Your task to perform on an android device: change text size in settings app Image 0: 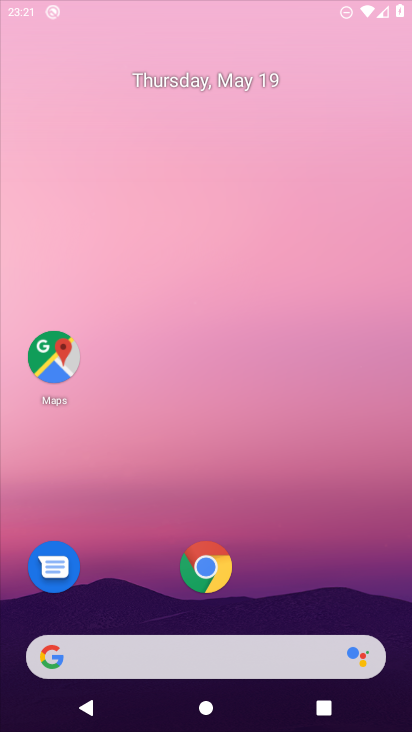
Step 0: press home button
Your task to perform on an android device: change text size in settings app Image 1: 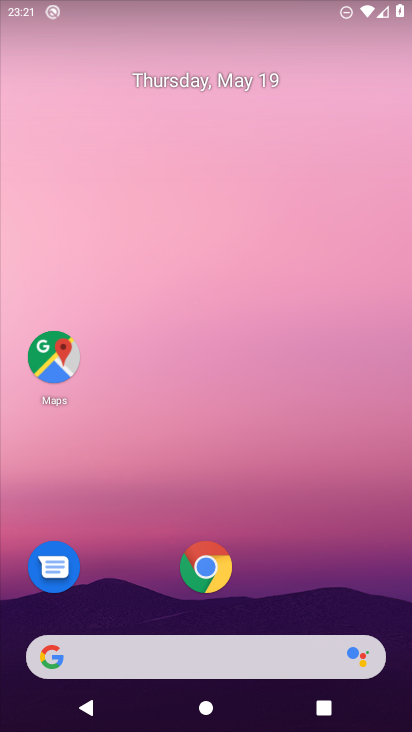
Step 1: drag from (252, 614) to (288, 13)
Your task to perform on an android device: change text size in settings app Image 2: 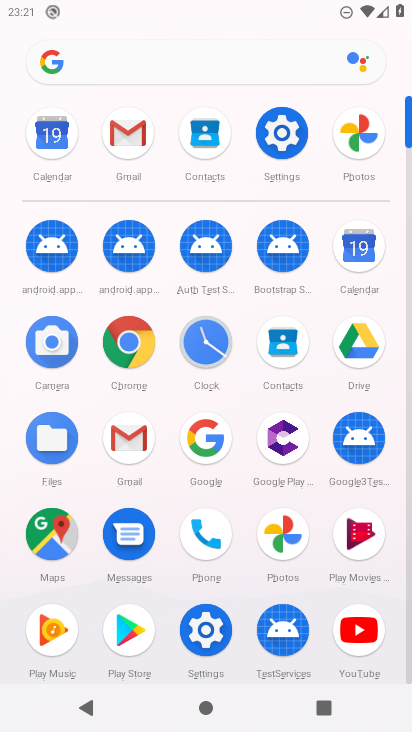
Step 2: click (283, 127)
Your task to perform on an android device: change text size in settings app Image 3: 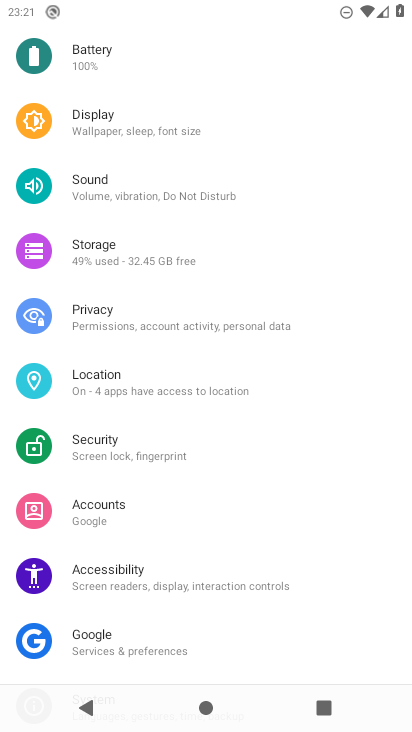
Step 3: click (127, 111)
Your task to perform on an android device: change text size in settings app Image 4: 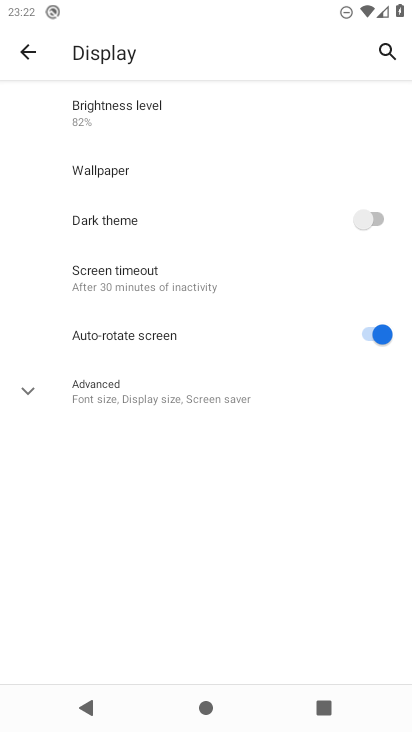
Step 4: click (55, 390)
Your task to perform on an android device: change text size in settings app Image 5: 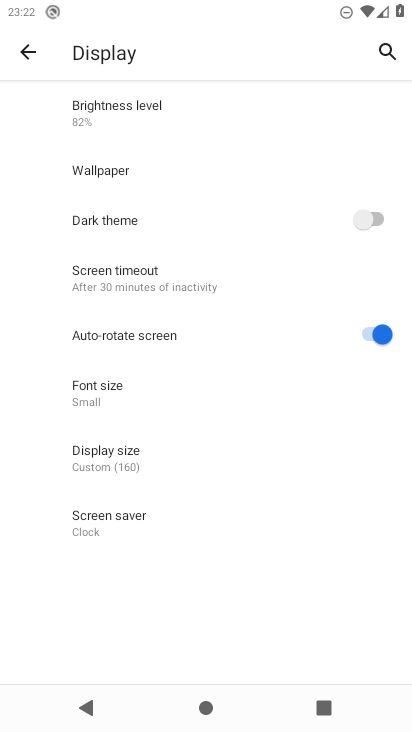
Step 5: click (113, 395)
Your task to perform on an android device: change text size in settings app Image 6: 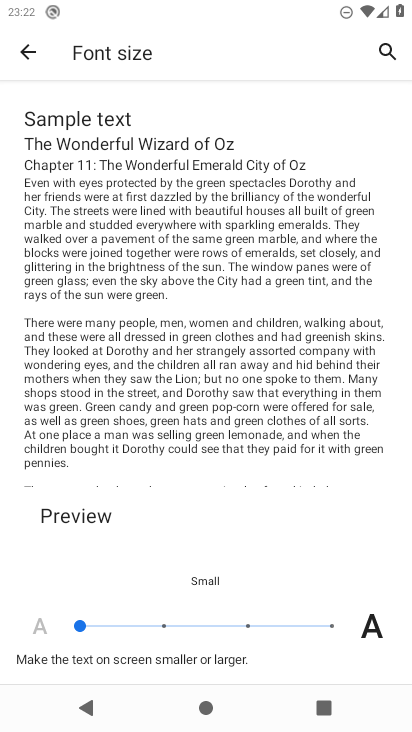
Step 6: click (162, 617)
Your task to perform on an android device: change text size in settings app Image 7: 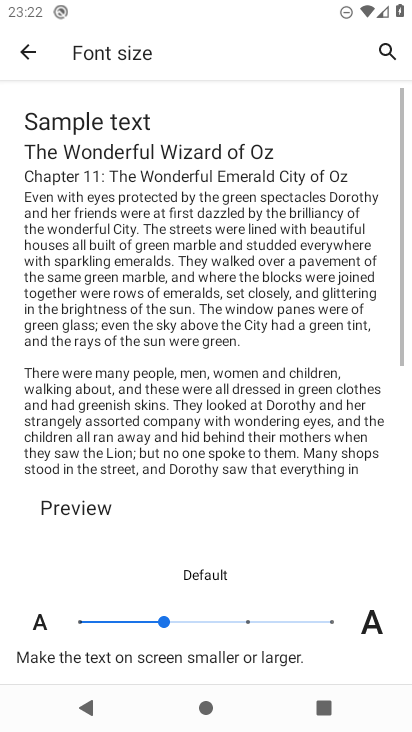
Step 7: task complete